Your task to perform on an android device: Go to CNN.com Image 0: 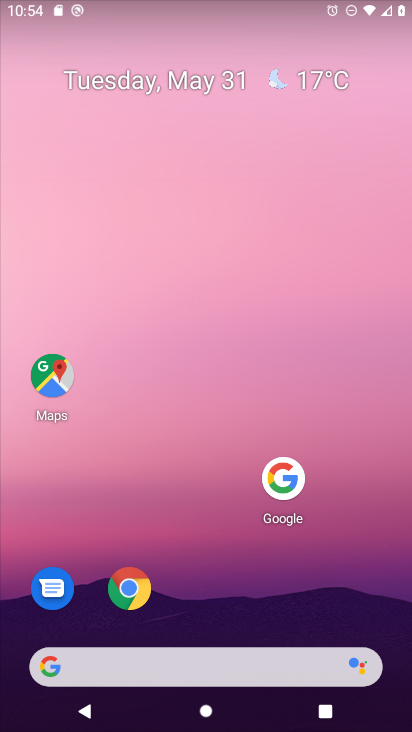
Step 0: click (136, 591)
Your task to perform on an android device: Go to CNN.com Image 1: 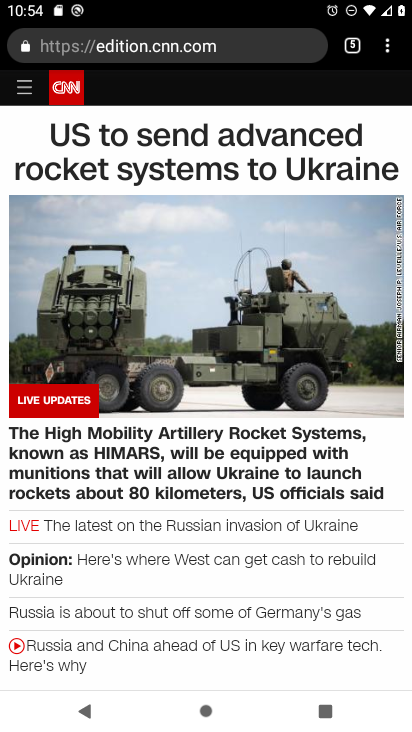
Step 1: task complete